Your task to perform on an android device: open app "Spotify" Image 0: 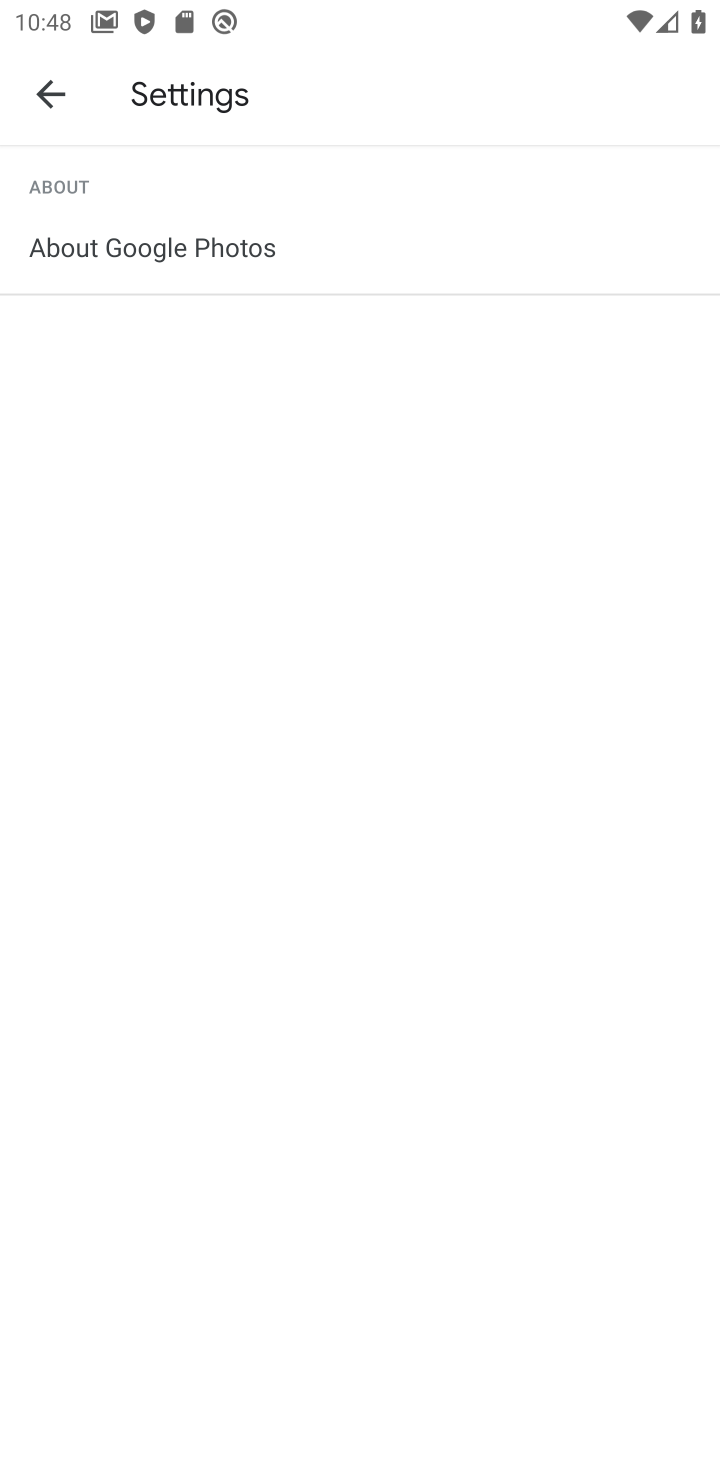
Step 0: press home button
Your task to perform on an android device: open app "Spotify" Image 1: 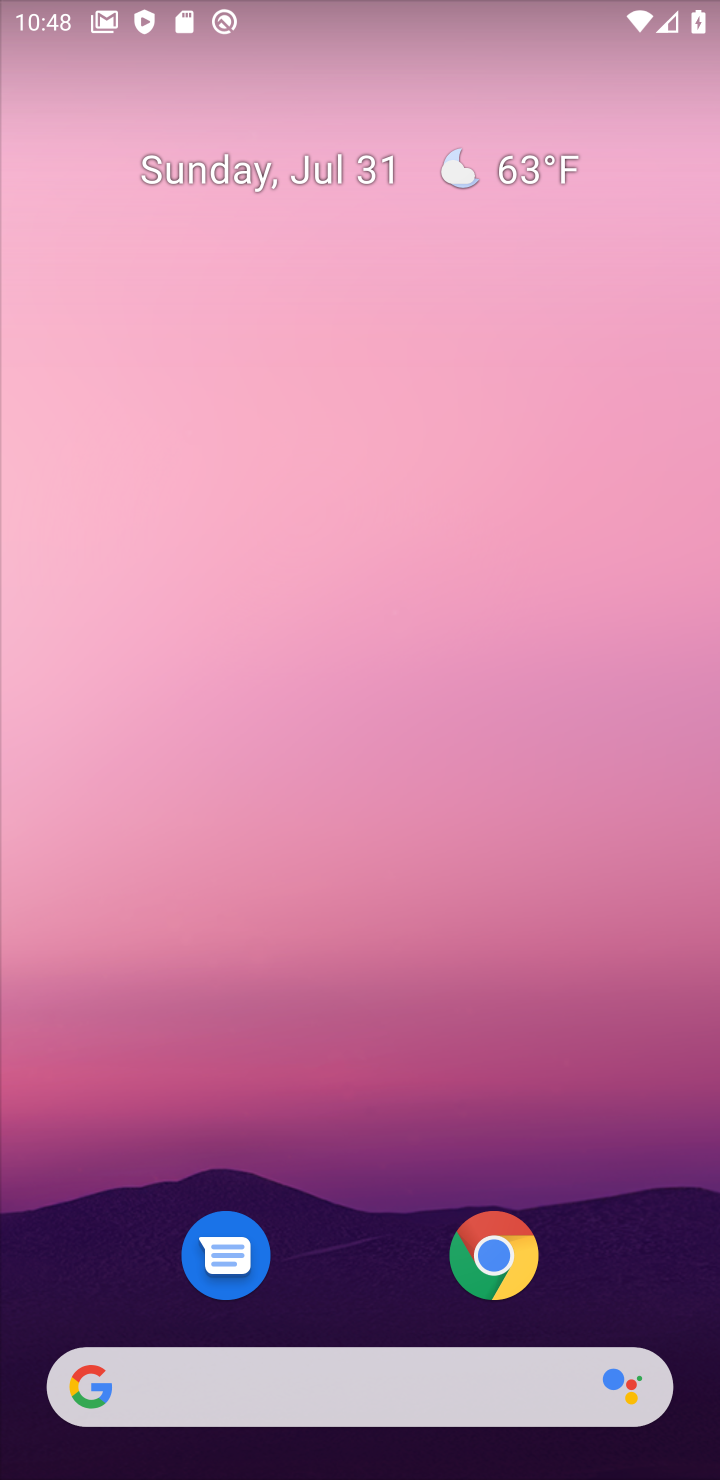
Step 1: drag from (388, 1338) to (525, 1)
Your task to perform on an android device: open app "Spotify" Image 2: 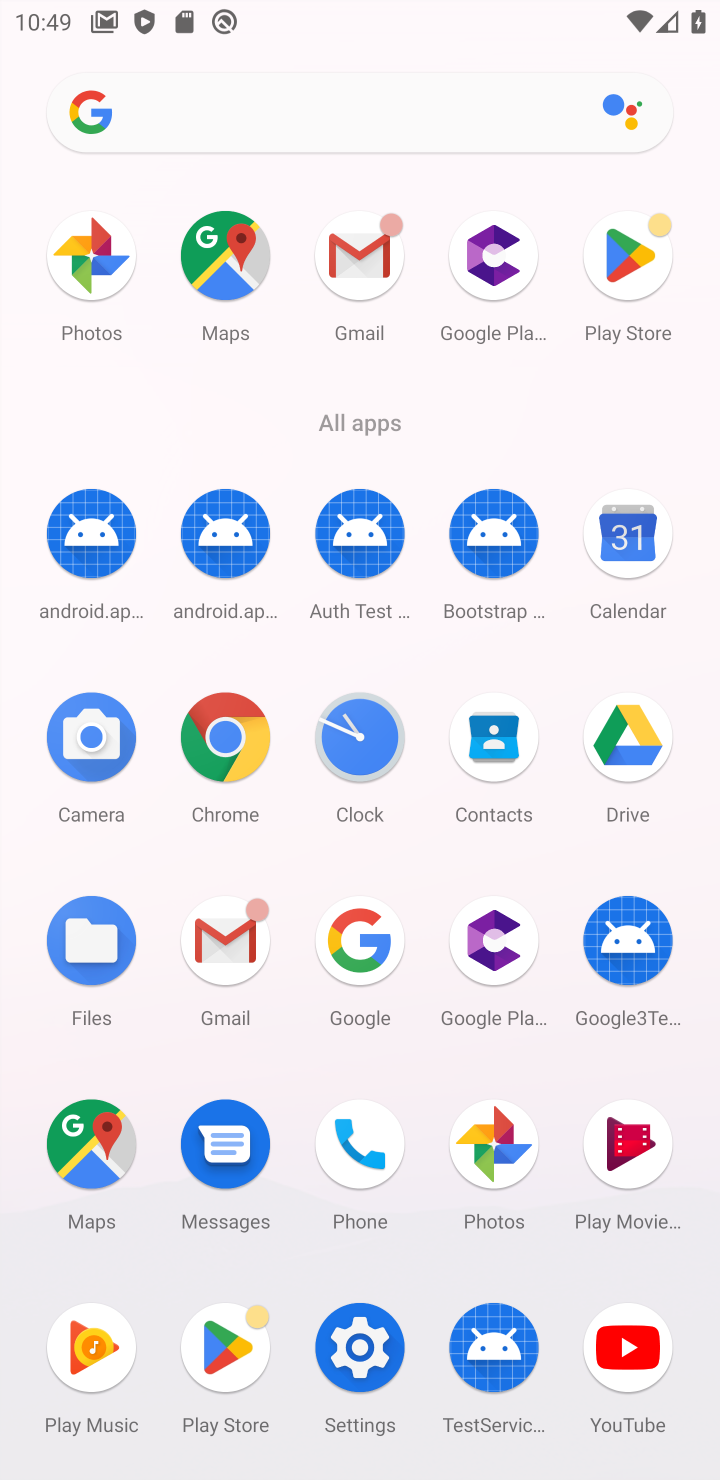
Step 2: click (221, 1359)
Your task to perform on an android device: open app "Spotify" Image 3: 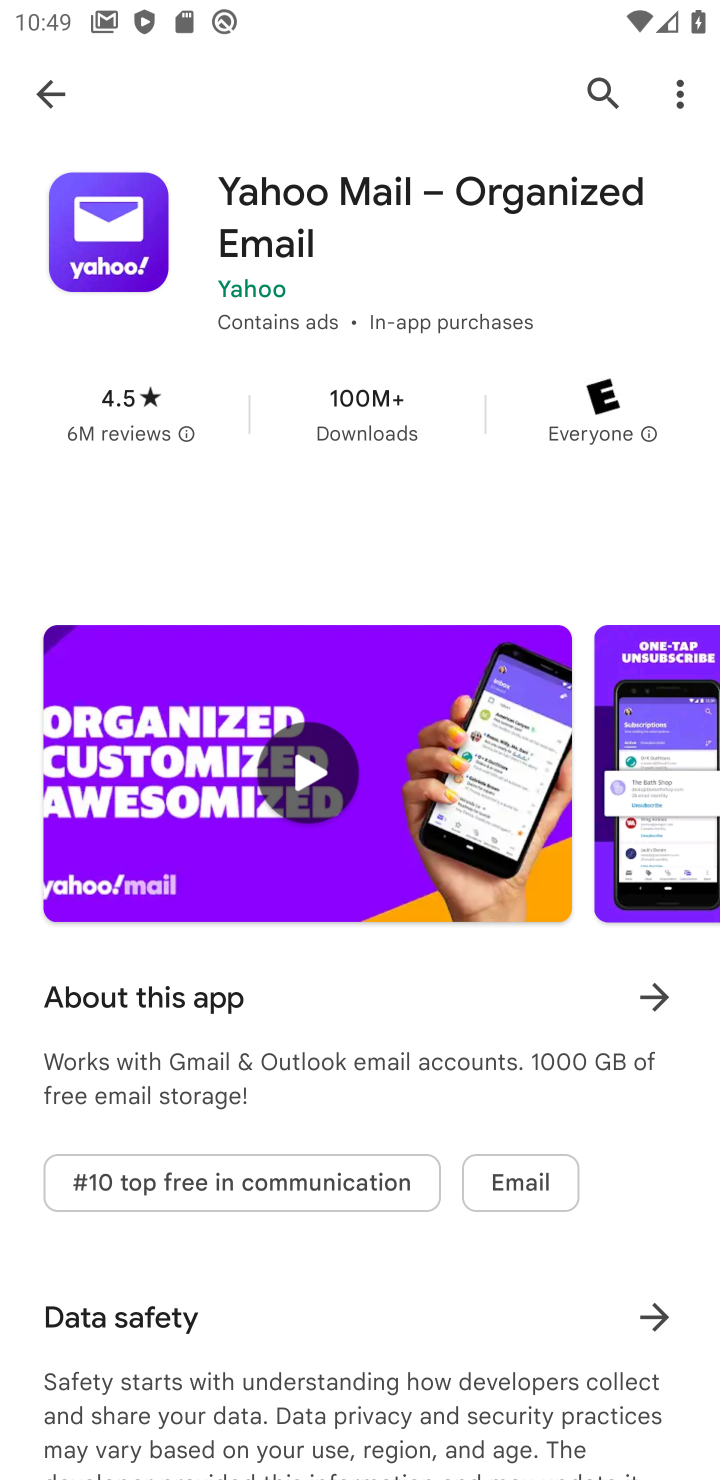
Step 3: press home button
Your task to perform on an android device: open app "Spotify" Image 4: 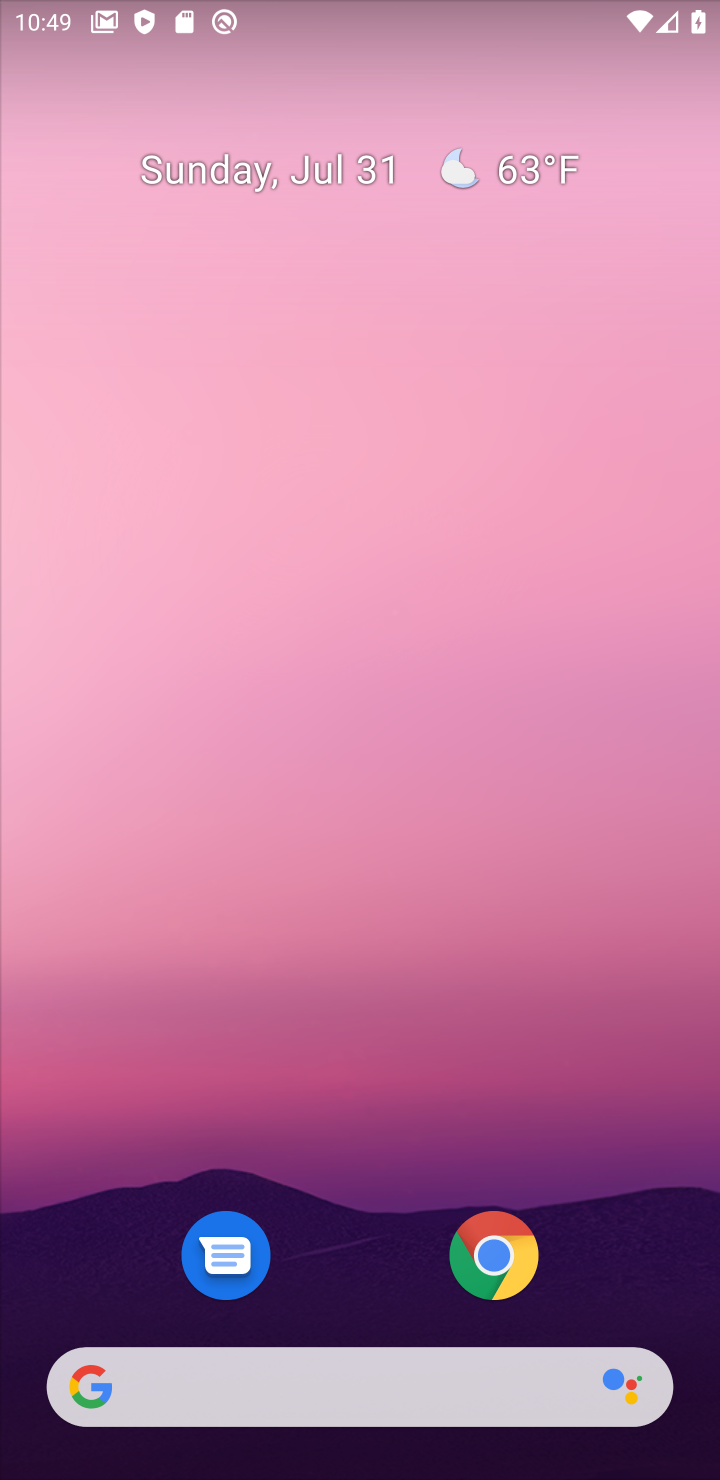
Step 4: drag from (357, 1289) to (252, 59)
Your task to perform on an android device: open app "Spotify" Image 5: 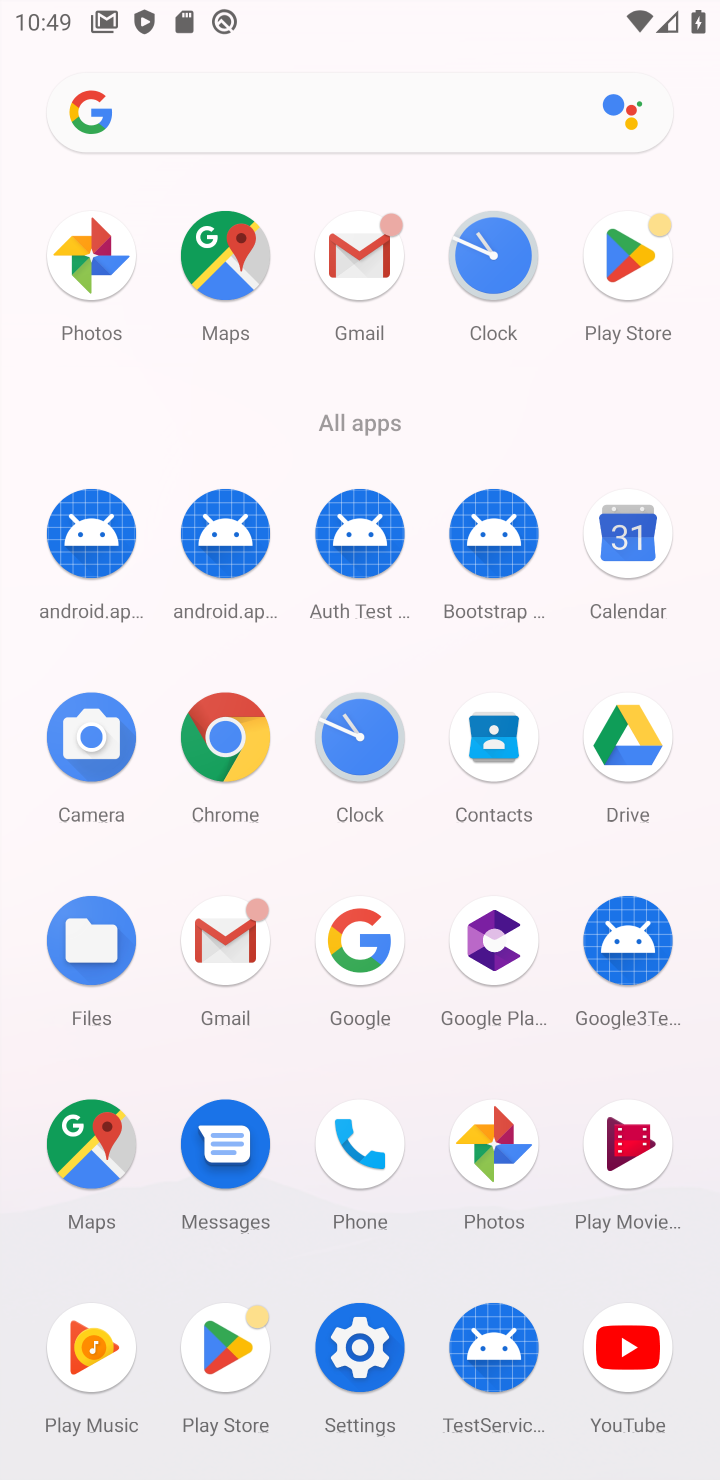
Step 5: drag from (295, 1237) to (295, 97)
Your task to perform on an android device: open app "Spotify" Image 6: 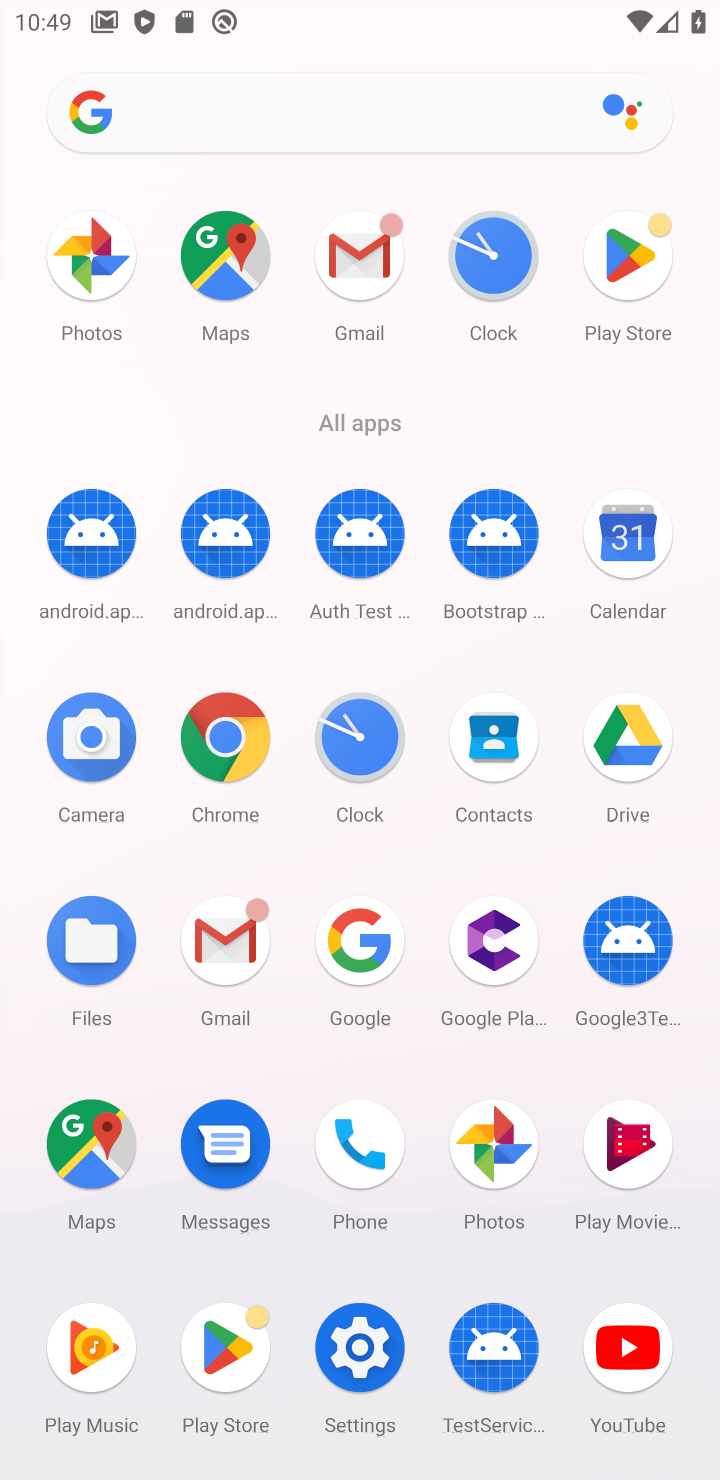
Step 6: click (224, 1364)
Your task to perform on an android device: open app "Spotify" Image 7: 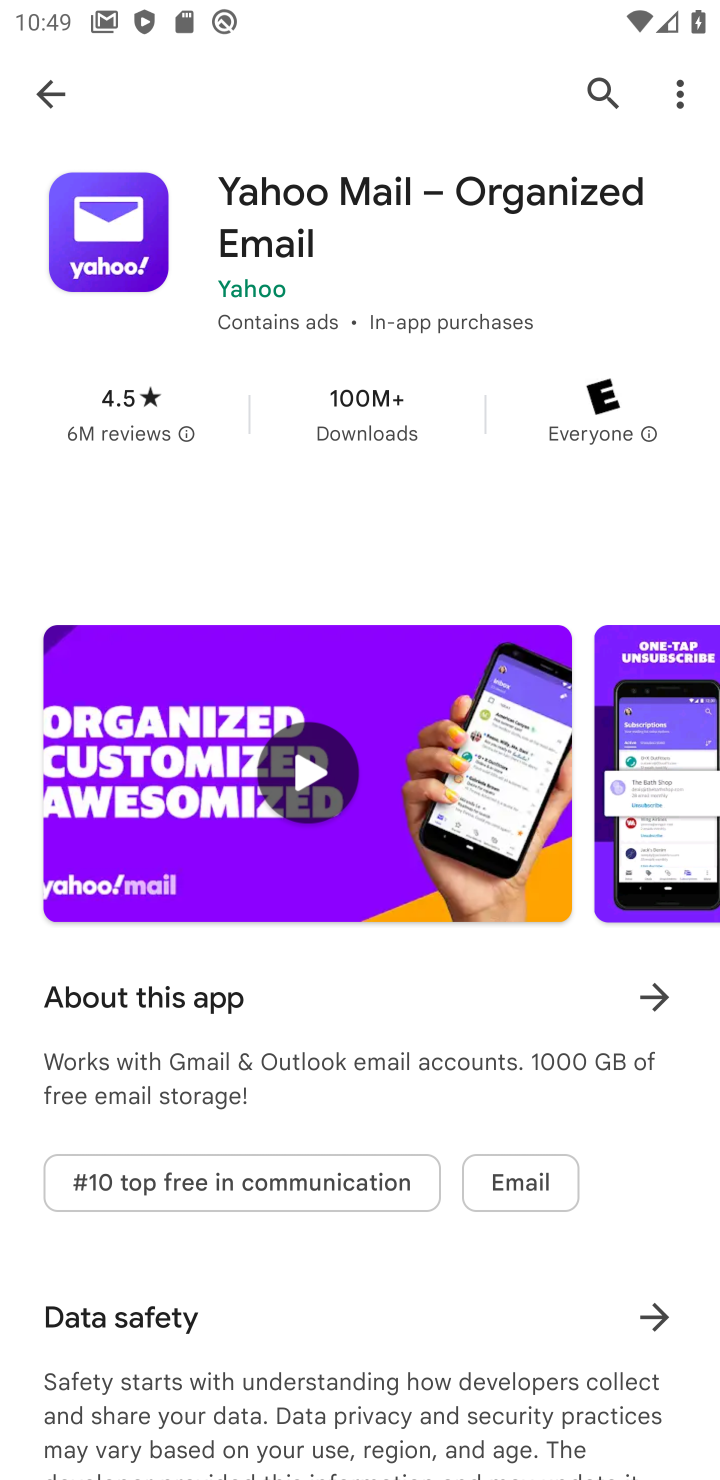
Step 7: click (65, 99)
Your task to perform on an android device: open app "Spotify" Image 8: 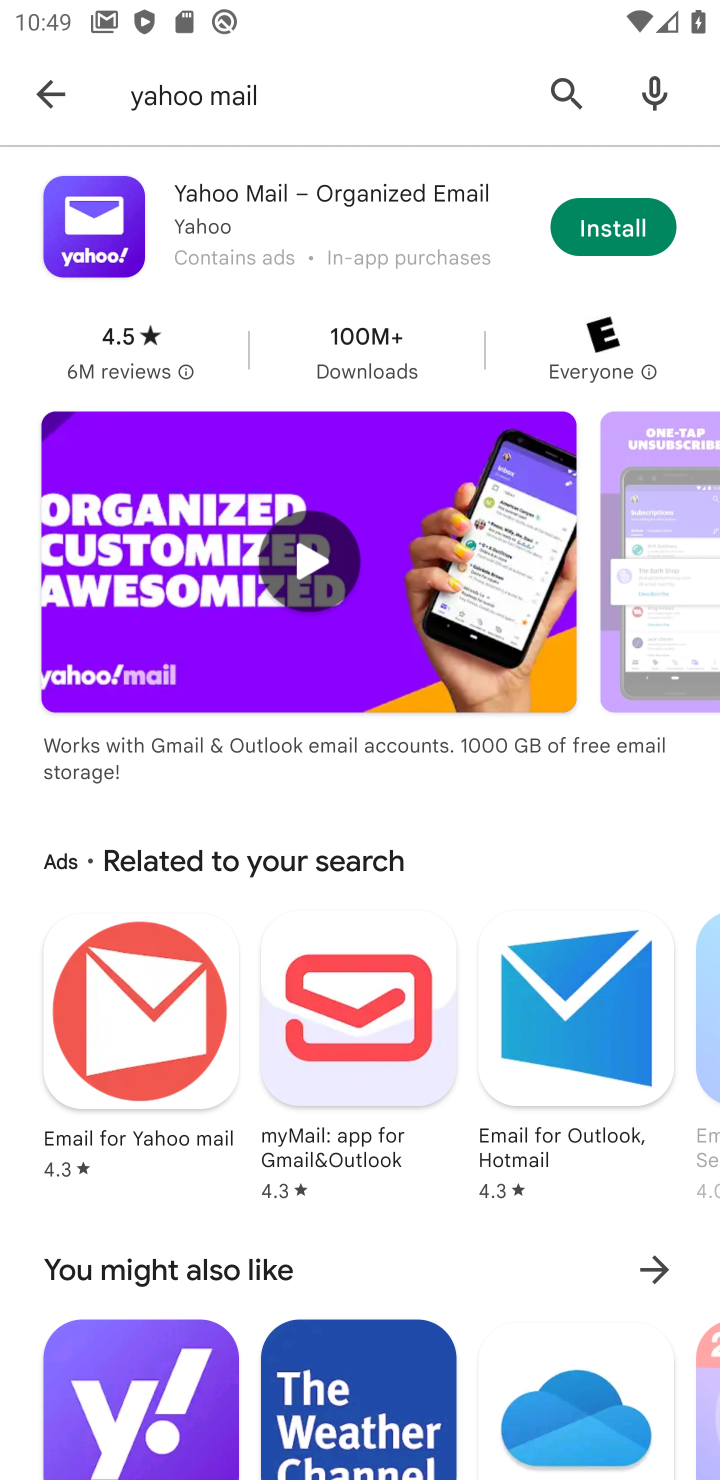
Step 8: click (44, 92)
Your task to perform on an android device: open app "Spotify" Image 9: 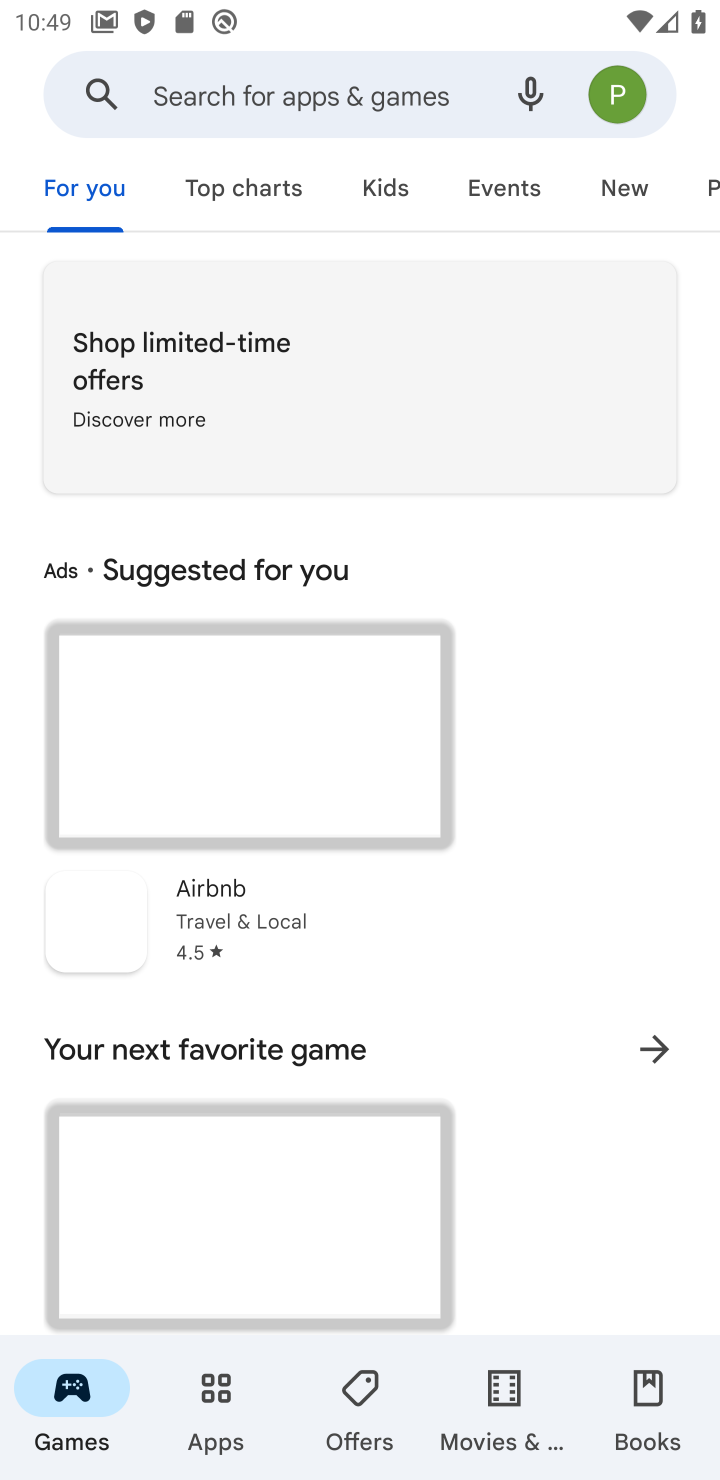
Step 9: click (186, 118)
Your task to perform on an android device: open app "Spotify" Image 10: 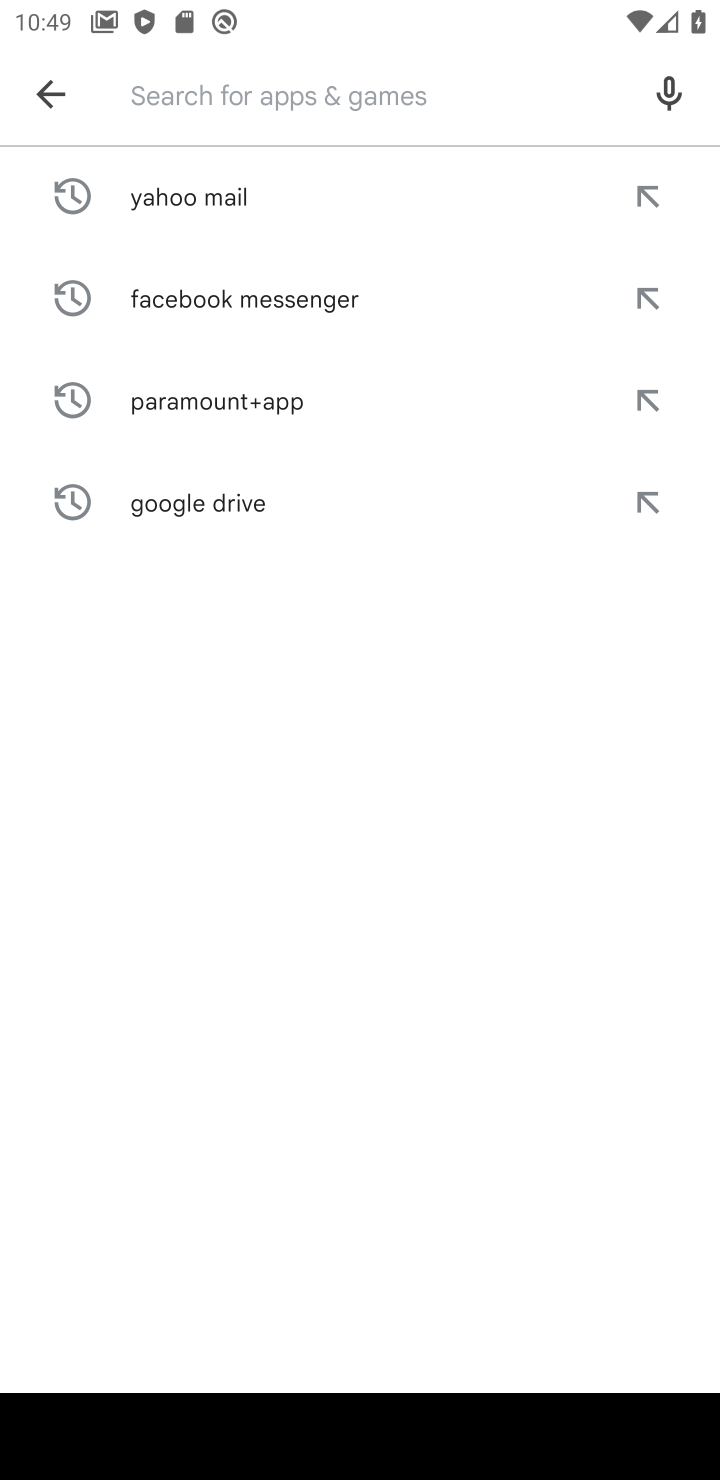
Step 10: type "Spotify"
Your task to perform on an android device: open app "Spotify" Image 11: 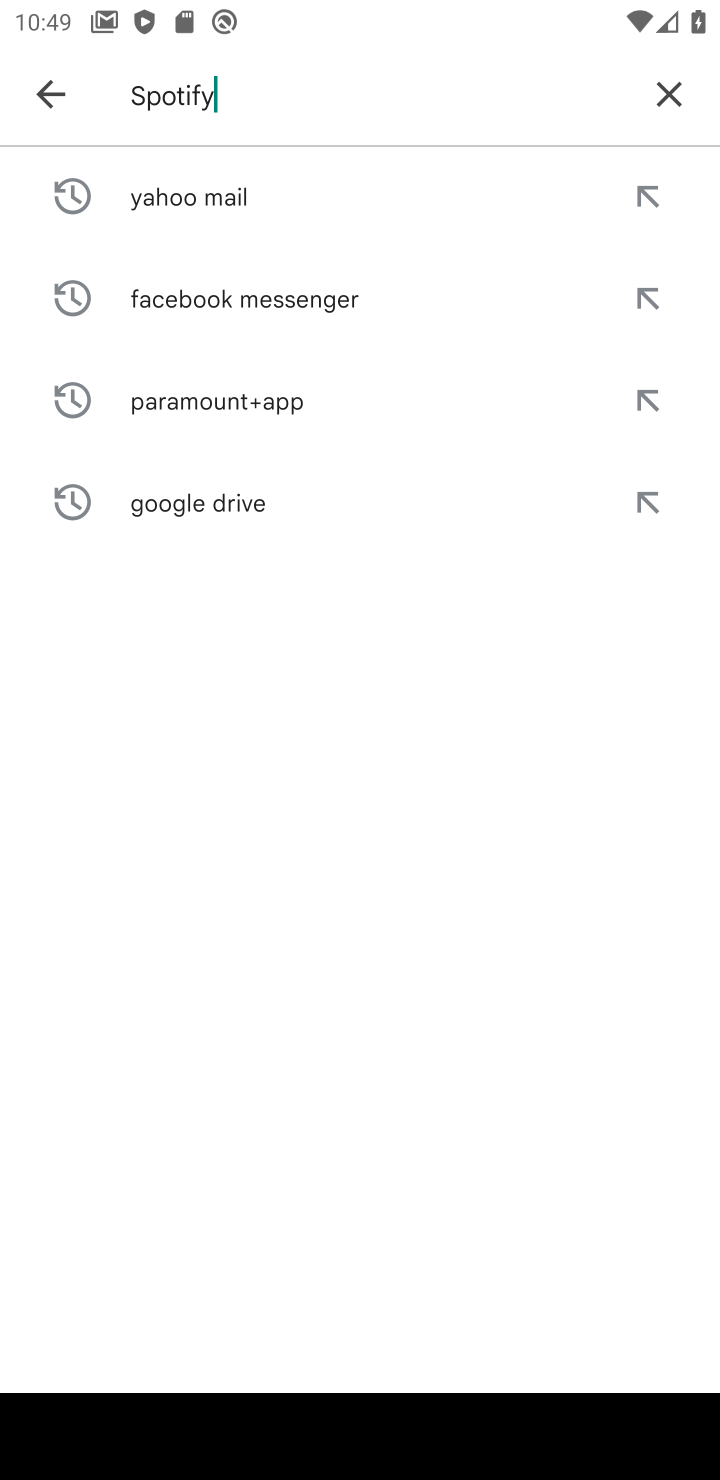
Step 11: type ""
Your task to perform on an android device: open app "Spotify" Image 12: 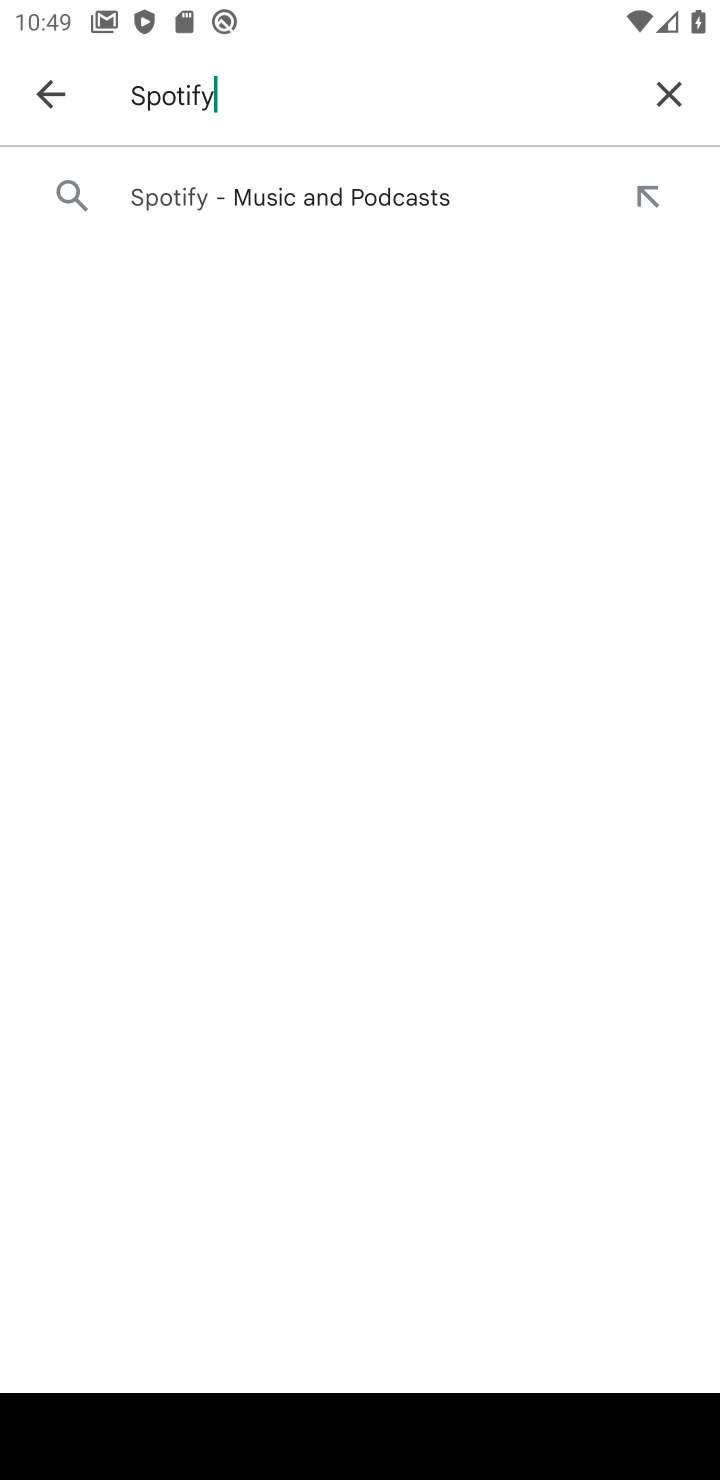
Step 12: click (339, 201)
Your task to perform on an android device: open app "Spotify" Image 13: 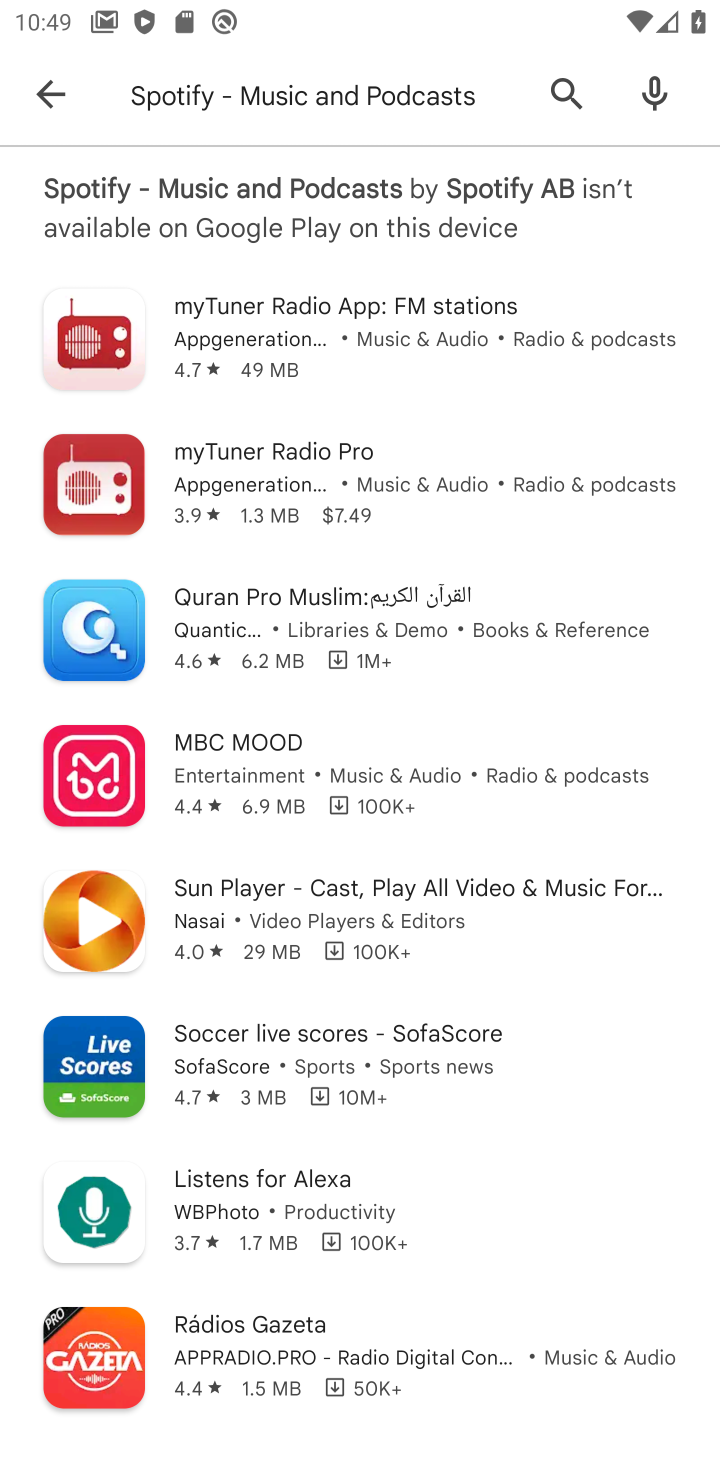
Step 13: task complete